Your task to perform on an android device: Go to network settings Image 0: 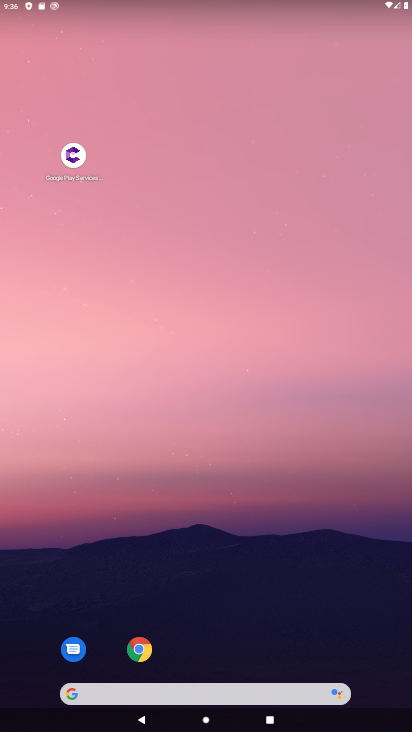
Step 0: drag from (286, 584) to (303, 9)
Your task to perform on an android device: Go to network settings Image 1: 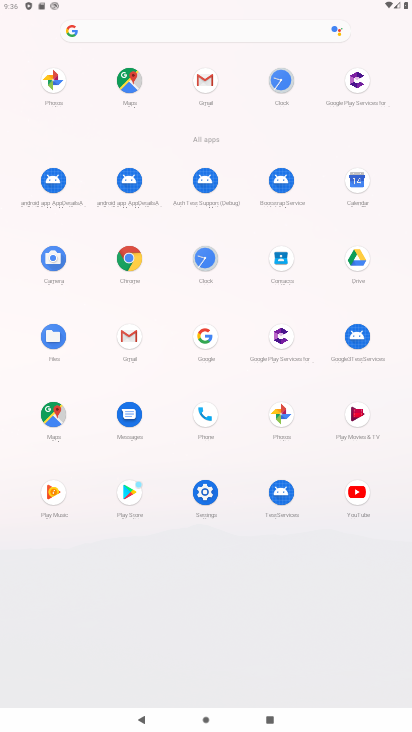
Step 1: click (206, 495)
Your task to perform on an android device: Go to network settings Image 2: 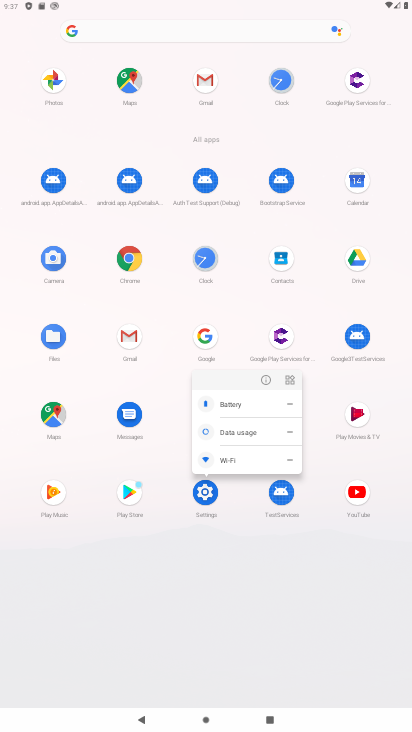
Step 2: click (212, 487)
Your task to perform on an android device: Go to network settings Image 3: 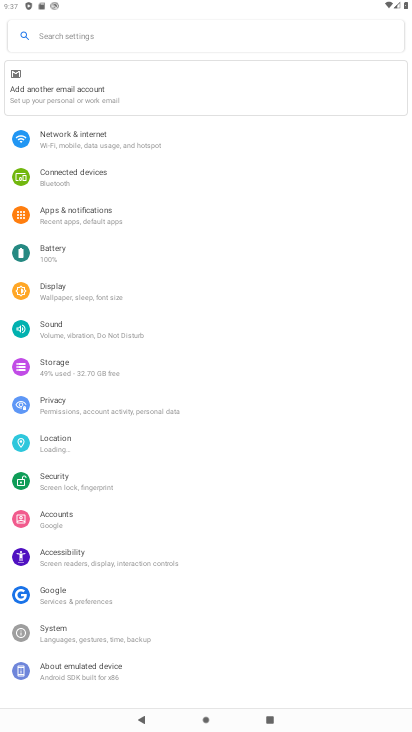
Step 3: click (108, 142)
Your task to perform on an android device: Go to network settings Image 4: 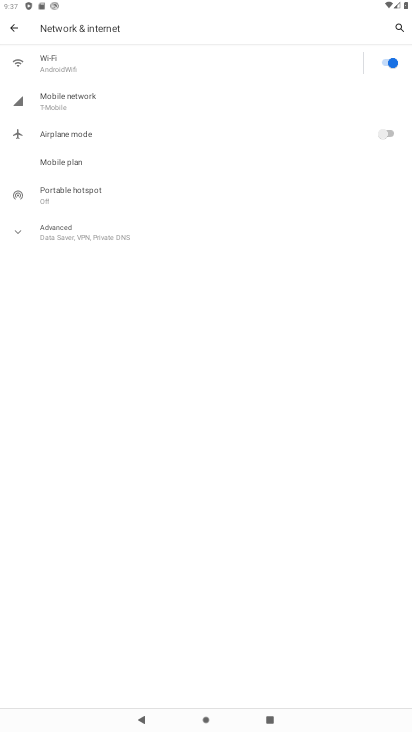
Step 4: click (83, 105)
Your task to perform on an android device: Go to network settings Image 5: 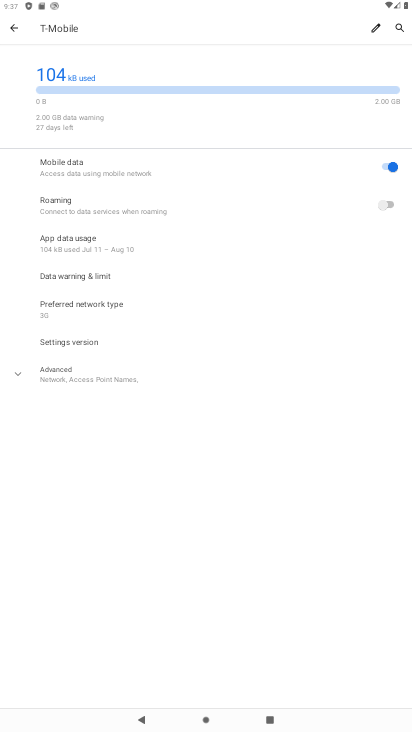
Step 5: task complete